Your task to perform on an android device: Open Reddit.com Image 0: 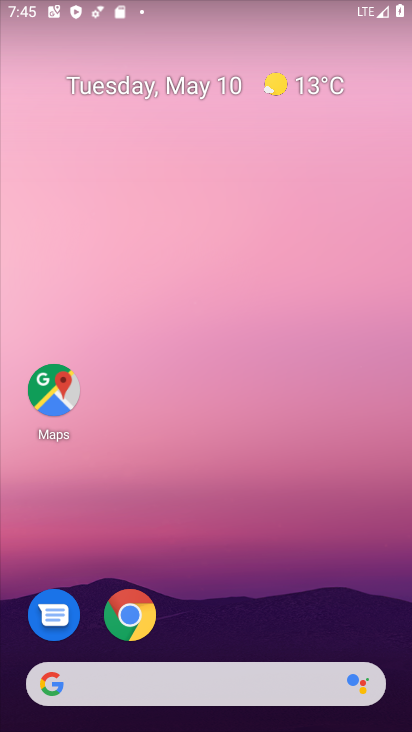
Step 0: drag from (307, 585) to (327, 149)
Your task to perform on an android device: Open Reddit.com Image 1: 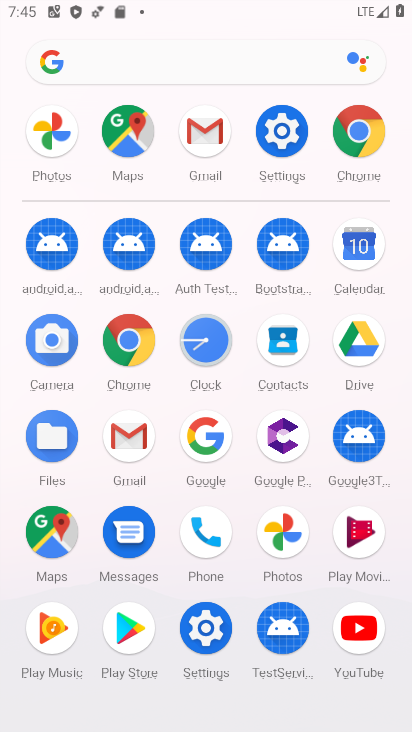
Step 1: click (353, 142)
Your task to perform on an android device: Open Reddit.com Image 2: 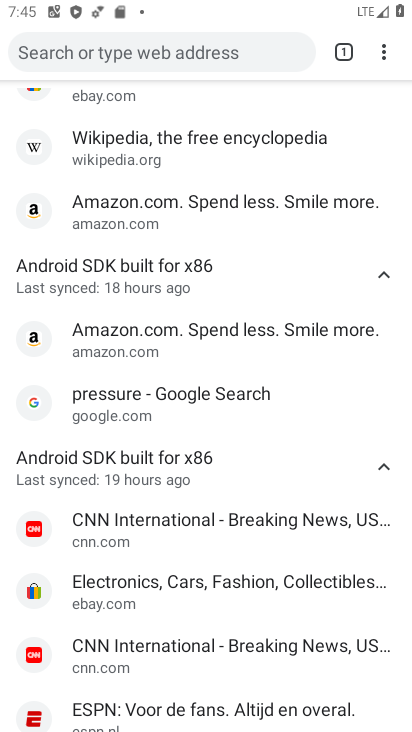
Step 2: click (180, 48)
Your task to perform on an android device: Open Reddit.com Image 3: 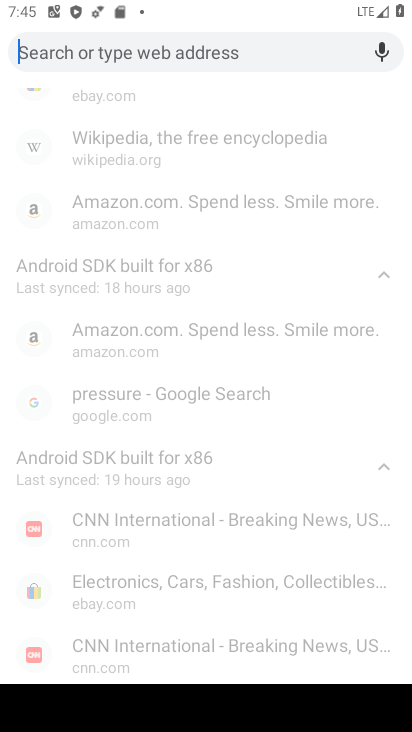
Step 3: type "reddit.com"
Your task to perform on an android device: Open Reddit.com Image 4: 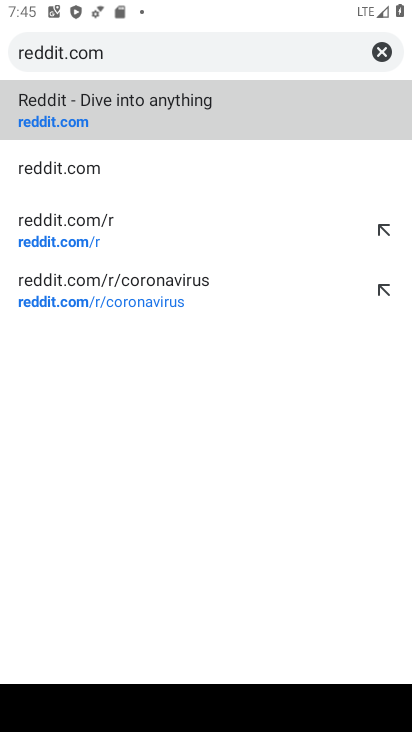
Step 4: click (72, 179)
Your task to perform on an android device: Open Reddit.com Image 5: 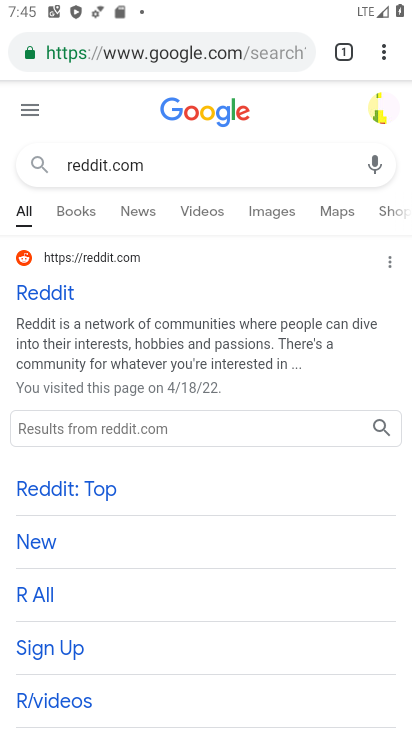
Step 5: click (32, 295)
Your task to perform on an android device: Open Reddit.com Image 6: 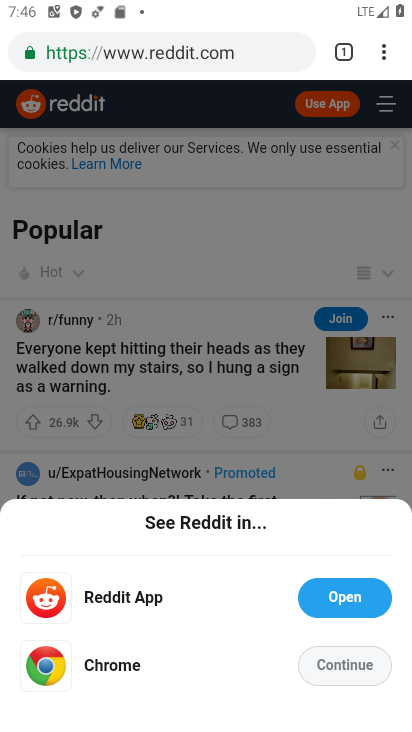
Step 6: task complete